Your task to perform on an android device: turn off airplane mode Image 0: 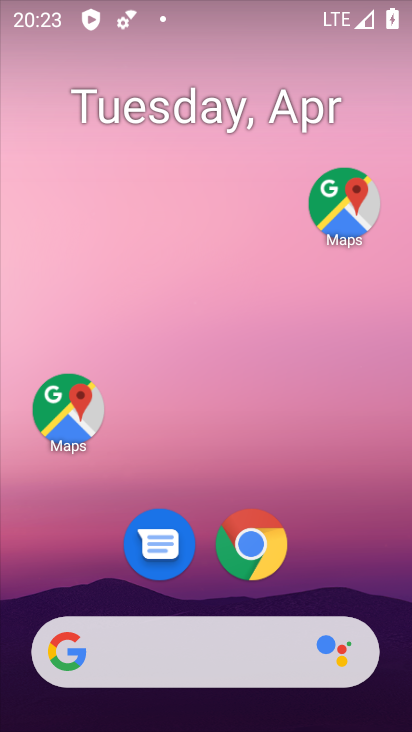
Step 0: drag from (205, 651) to (361, 27)
Your task to perform on an android device: turn off airplane mode Image 1: 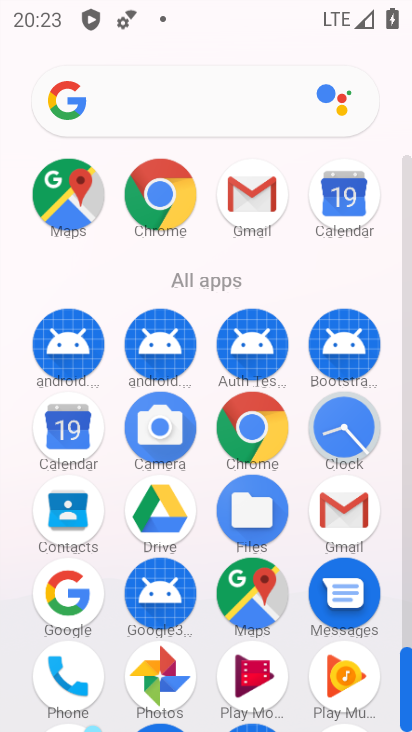
Step 1: drag from (210, 584) to (321, 119)
Your task to perform on an android device: turn off airplane mode Image 2: 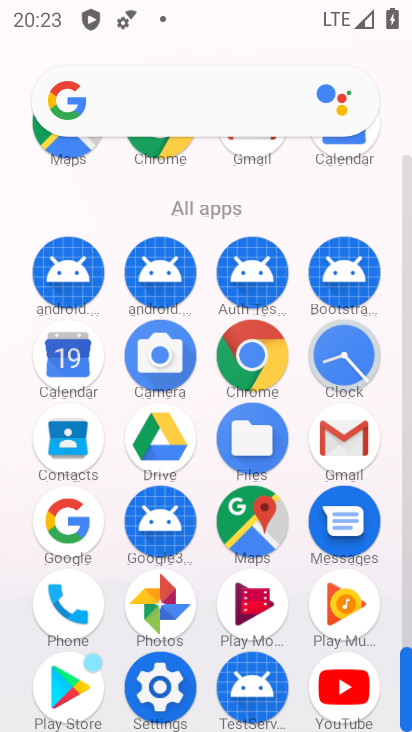
Step 2: click (167, 678)
Your task to perform on an android device: turn off airplane mode Image 3: 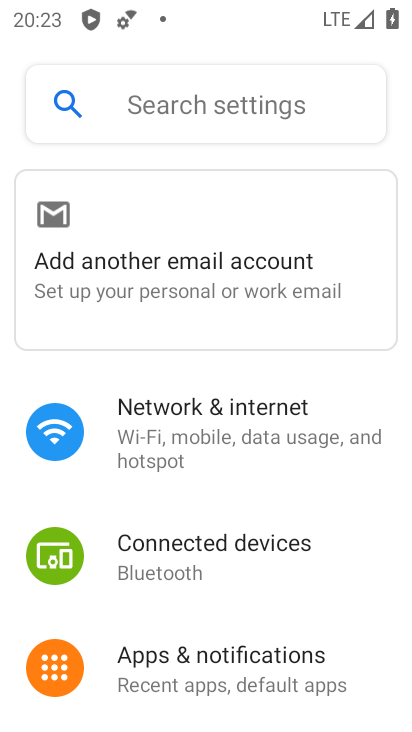
Step 3: click (256, 418)
Your task to perform on an android device: turn off airplane mode Image 4: 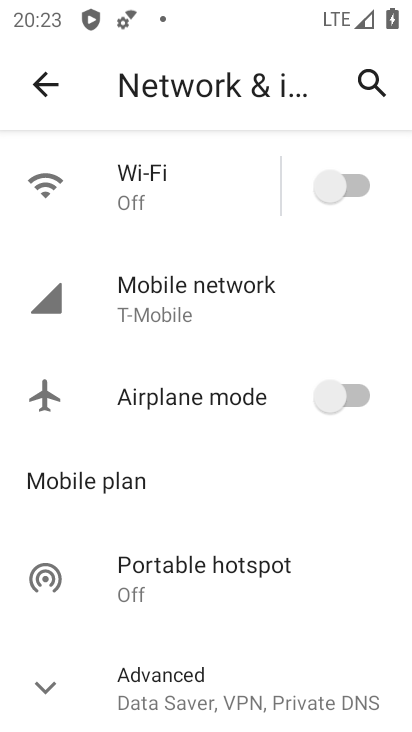
Step 4: task complete